Your task to perform on an android device: see creations saved in the google photos Image 0: 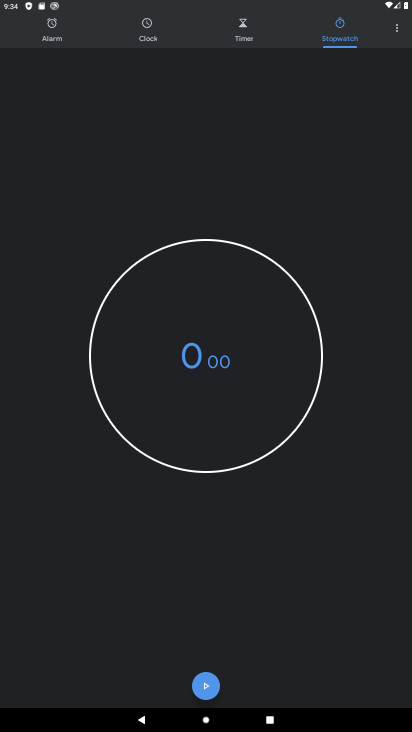
Step 0: press home button
Your task to perform on an android device: see creations saved in the google photos Image 1: 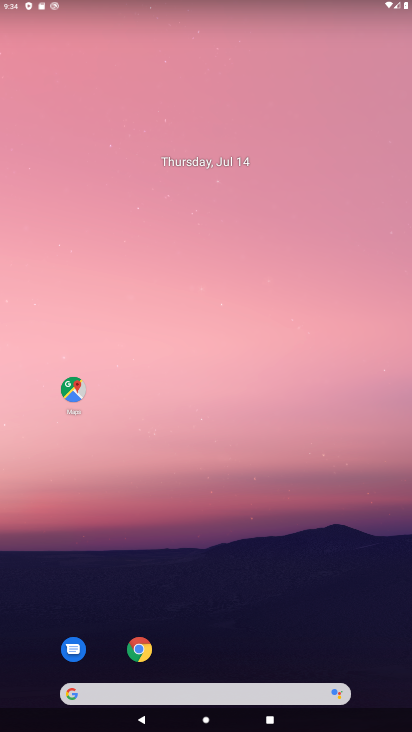
Step 1: drag from (190, 643) to (224, 89)
Your task to perform on an android device: see creations saved in the google photos Image 2: 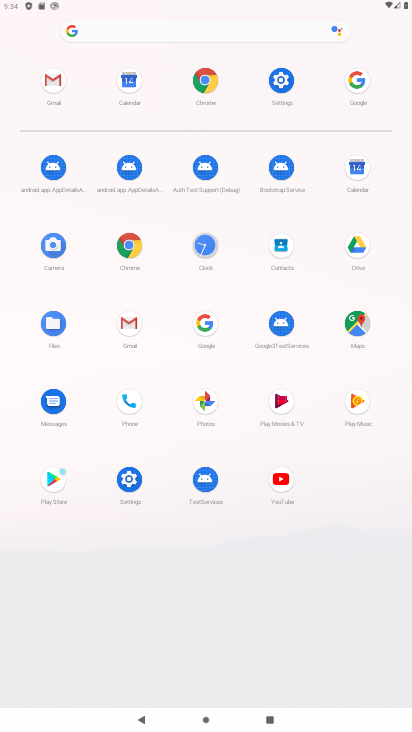
Step 2: click (189, 405)
Your task to perform on an android device: see creations saved in the google photos Image 3: 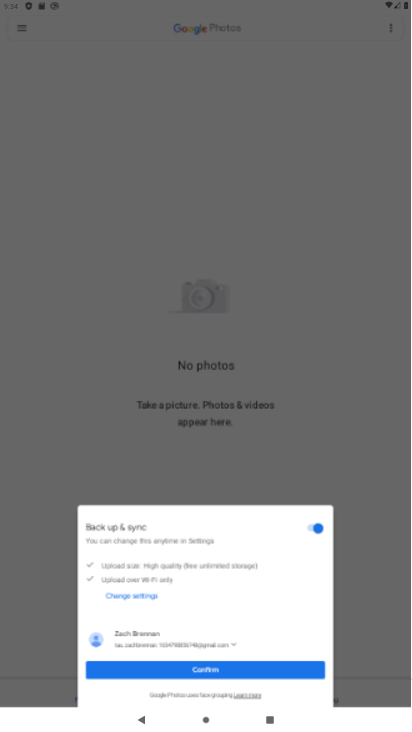
Step 3: click (241, 673)
Your task to perform on an android device: see creations saved in the google photos Image 4: 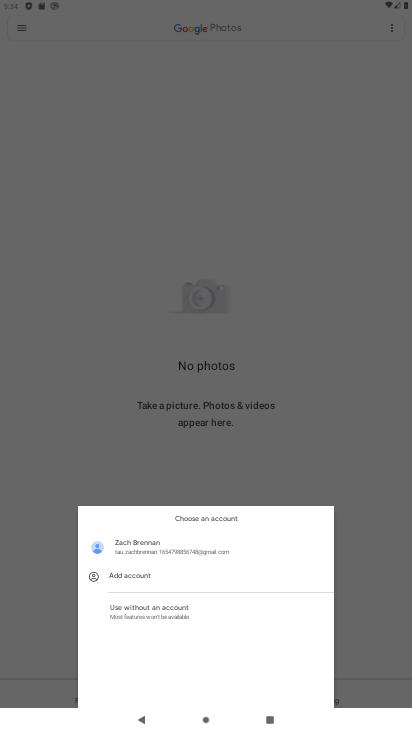
Step 4: click (314, 235)
Your task to perform on an android device: see creations saved in the google photos Image 5: 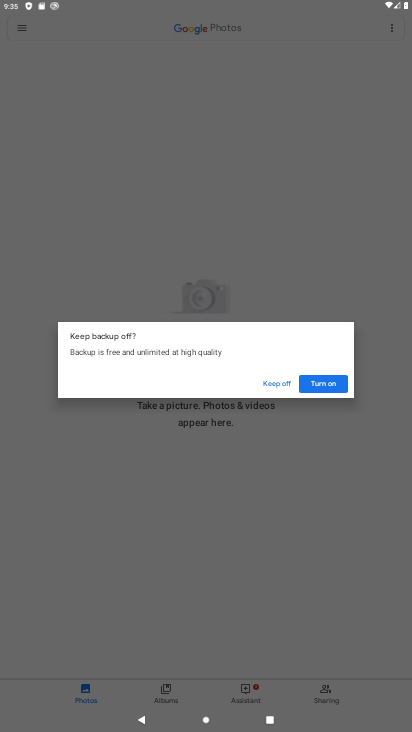
Step 5: click (319, 387)
Your task to perform on an android device: see creations saved in the google photos Image 6: 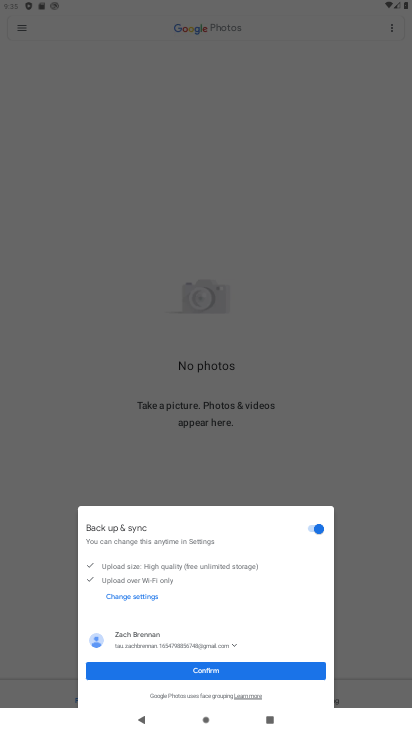
Step 6: click (269, 364)
Your task to perform on an android device: see creations saved in the google photos Image 7: 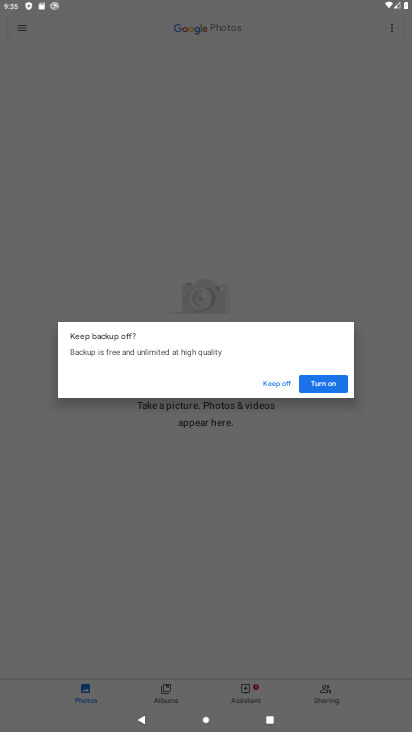
Step 7: click (270, 386)
Your task to perform on an android device: see creations saved in the google photos Image 8: 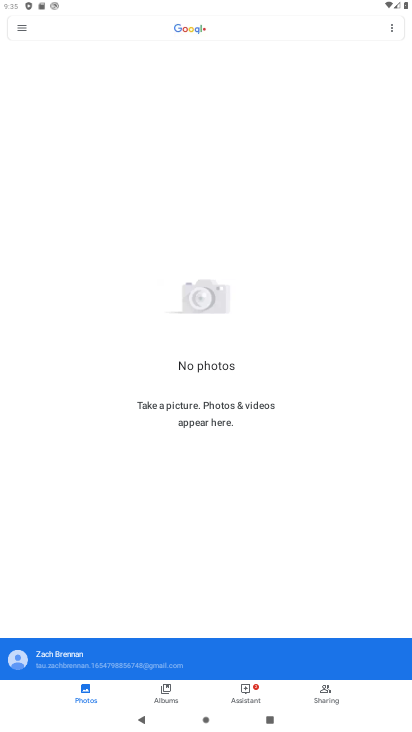
Step 8: click (79, 695)
Your task to perform on an android device: see creations saved in the google photos Image 9: 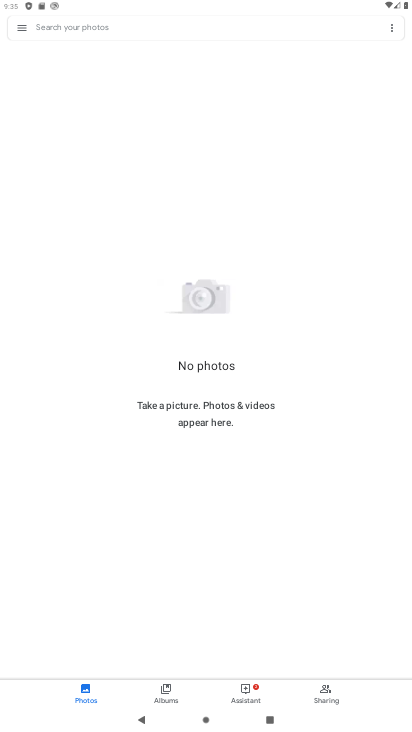
Step 9: click (176, 38)
Your task to perform on an android device: see creations saved in the google photos Image 10: 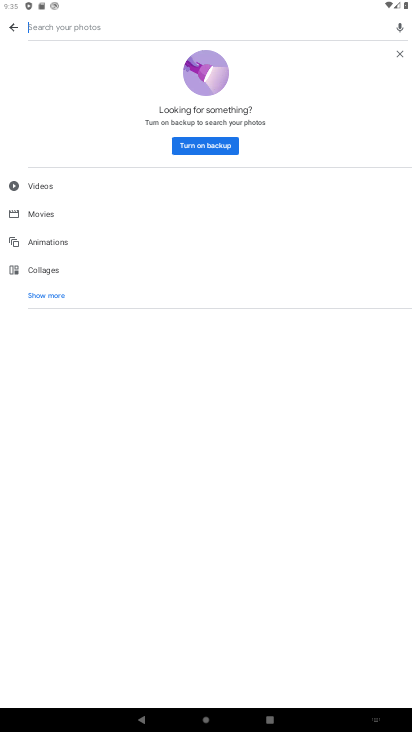
Step 10: click (33, 295)
Your task to perform on an android device: see creations saved in the google photos Image 11: 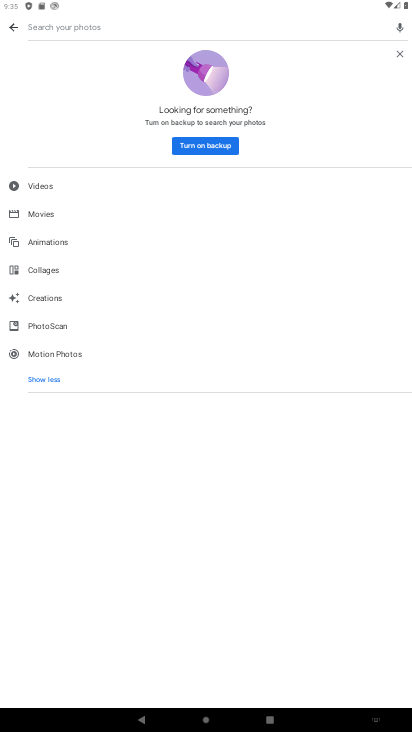
Step 11: click (52, 302)
Your task to perform on an android device: see creations saved in the google photos Image 12: 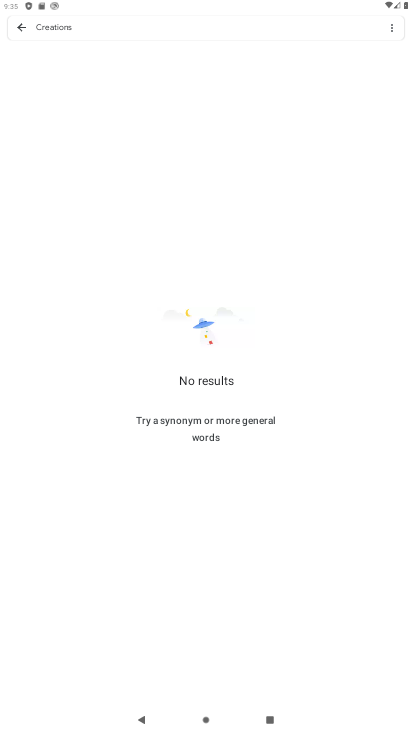
Step 12: task complete